Your task to perform on an android device: change notifications settings Image 0: 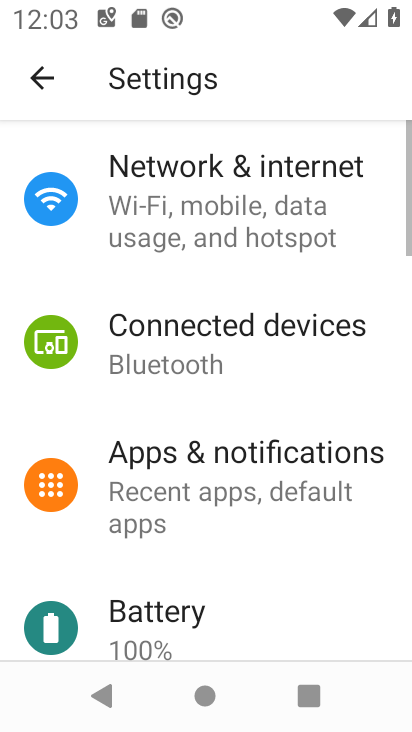
Step 0: press home button
Your task to perform on an android device: change notifications settings Image 1: 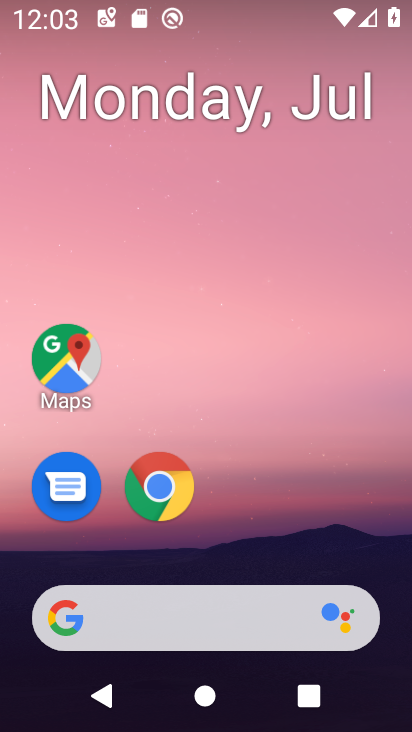
Step 1: drag from (372, 552) to (346, 301)
Your task to perform on an android device: change notifications settings Image 2: 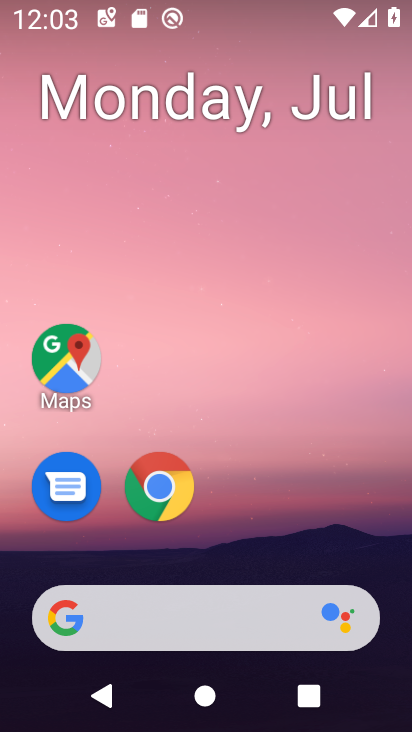
Step 2: drag from (358, 452) to (344, 87)
Your task to perform on an android device: change notifications settings Image 3: 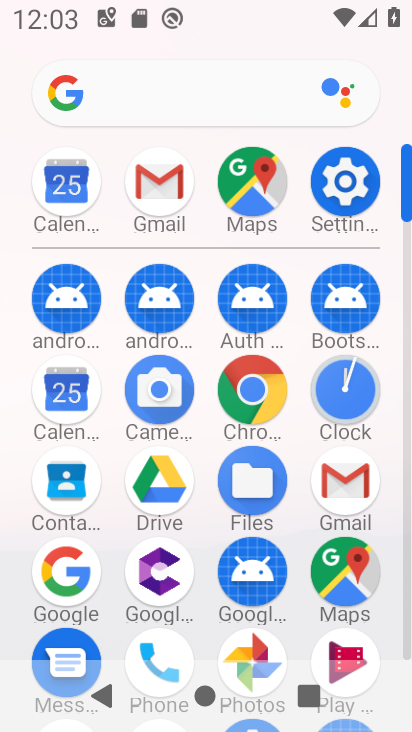
Step 3: click (351, 188)
Your task to perform on an android device: change notifications settings Image 4: 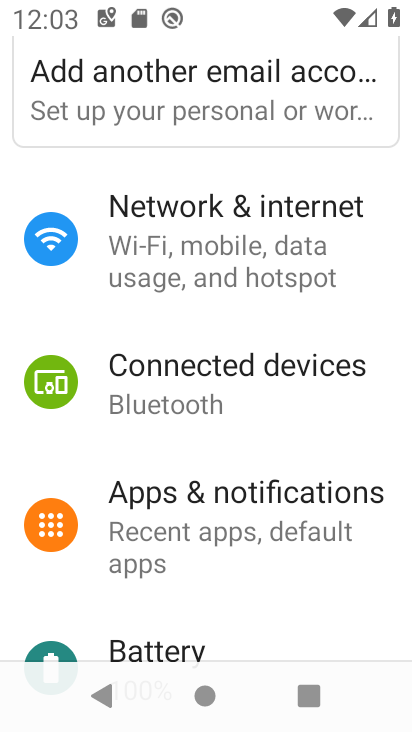
Step 4: drag from (367, 554) to (371, 420)
Your task to perform on an android device: change notifications settings Image 5: 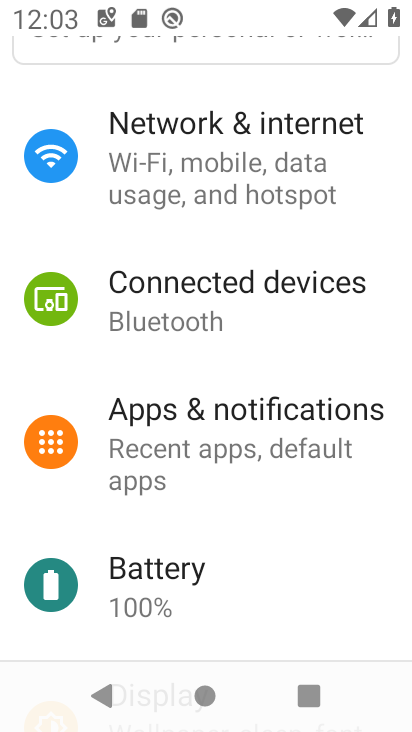
Step 5: drag from (357, 560) to (334, 435)
Your task to perform on an android device: change notifications settings Image 6: 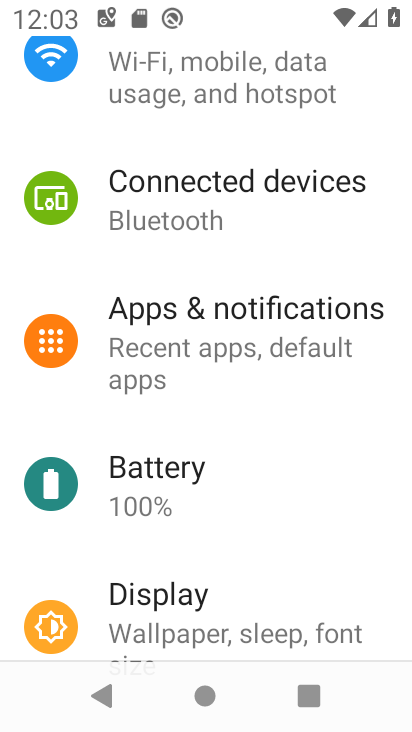
Step 6: drag from (320, 539) to (305, 428)
Your task to perform on an android device: change notifications settings Image 7: 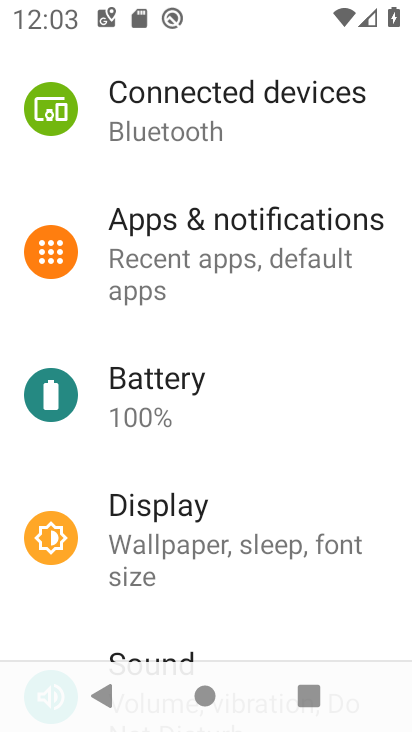
Step 7: drag from (297, 539) to (289, 379)
Your task to perform on an android device: change notifications settings Image 8: 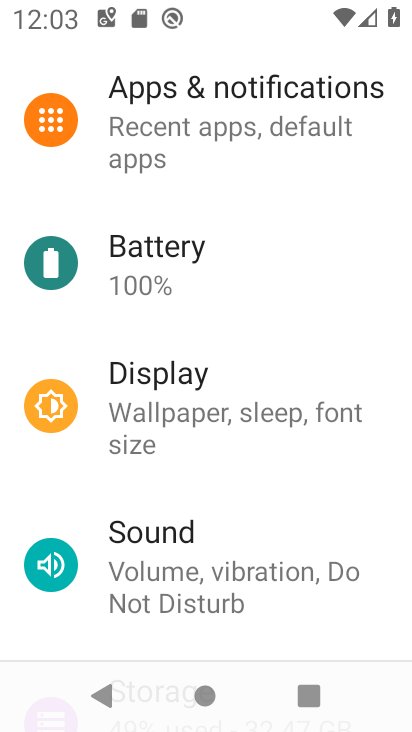
Step 8: drag from (294, 535) to (263, 407)
Your task to perform on an android device: change notifications settings Image 9: 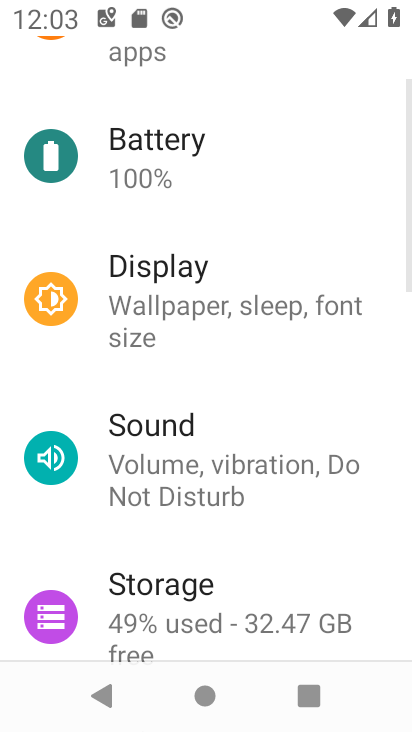
Step 9: drag from (273, 537) to (243, 410)
Your task to perform on an android device: change notifications settings Image 10: 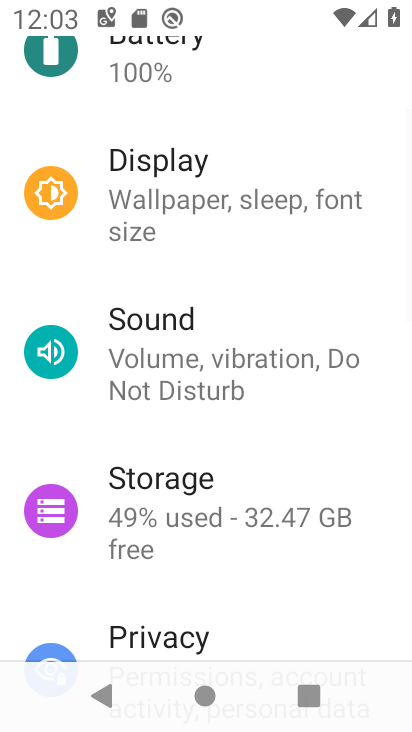
Step 10: drag from (270, 564) to (239, 427)
Your task to perform on an android device: change notifications settings Image 11: 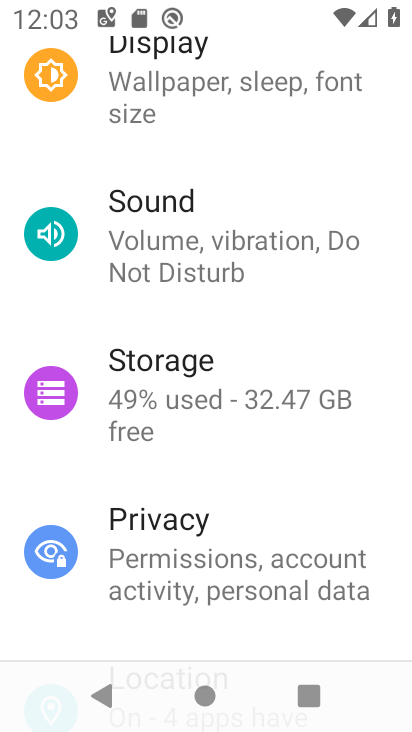
Step 11: drag from (295, 299) to (295, 373)
Your task to perform on an android device: change notifications settings Image 12: 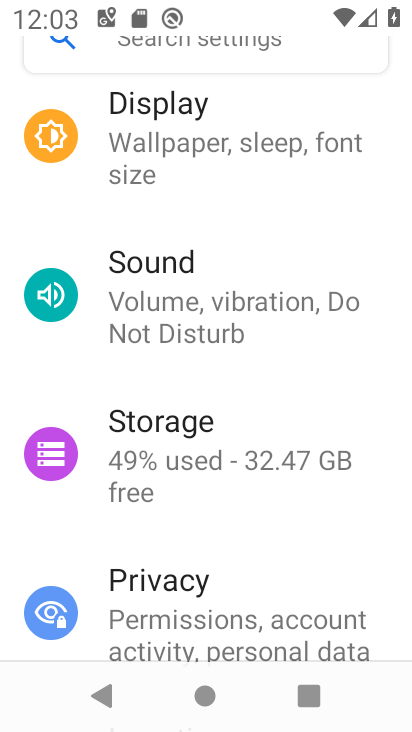
Step 12: drag from (317, 249) to (318, 382)
Your task to perform on an android device: change notifications settings Image 13: 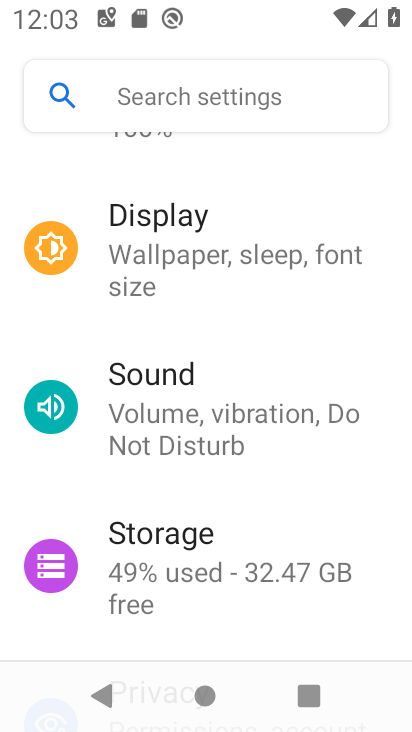
Step 13: drag from (363, 226) to (366, 400)
Your task to perform on an android device: change notifications settings Image 14: 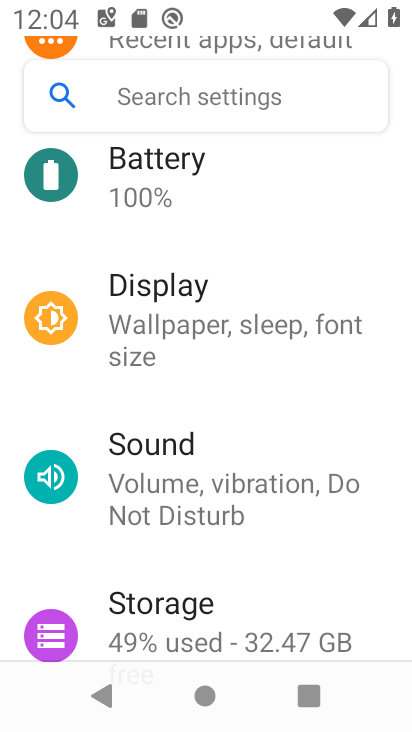
Step 14: drag from (360, 198) to (323, 431)
Your task to perform on an android device: change notifications settings Image 15: 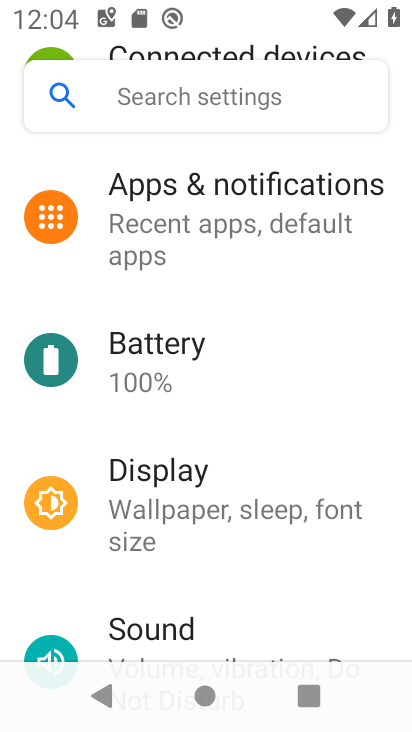
Step 15: click (337, 207)
Your task to perform on an android device: change notifications settings Image 16: 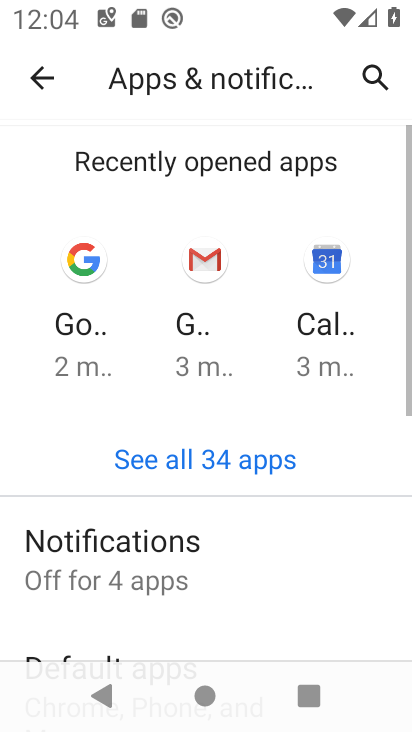
Step 16: drag from (313, 472) to (313, 391)
Your task to perform on an android device: change notifications settings Image 17: 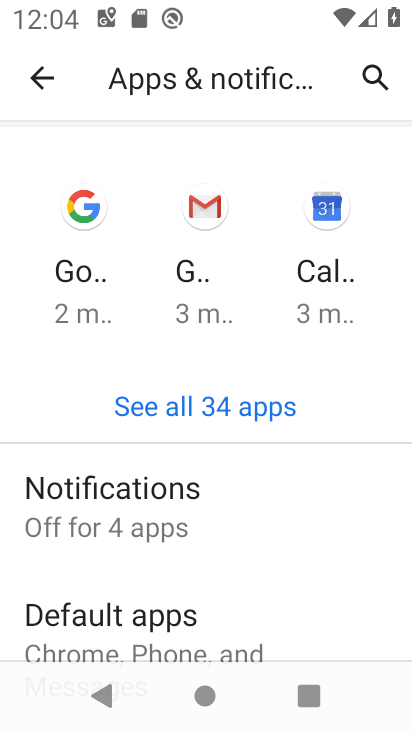
Step 17: drag from (298, 509) to (298, 407)
Your task to perform on an android device: change notifications settings Image 18: 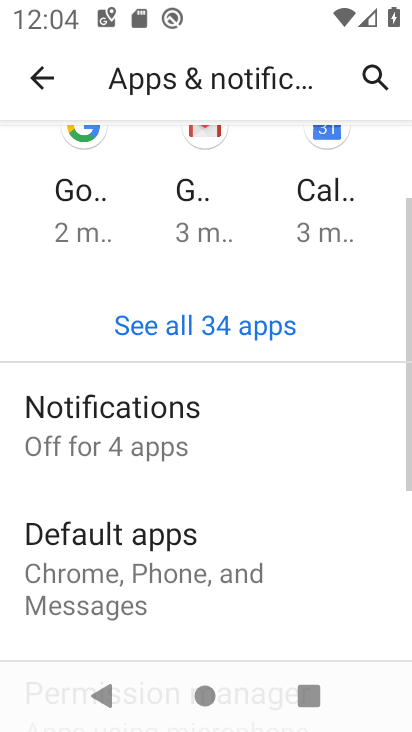
Step 18: click (298, 406)
Your task to perform on an android device: change notifications settings Image 19: 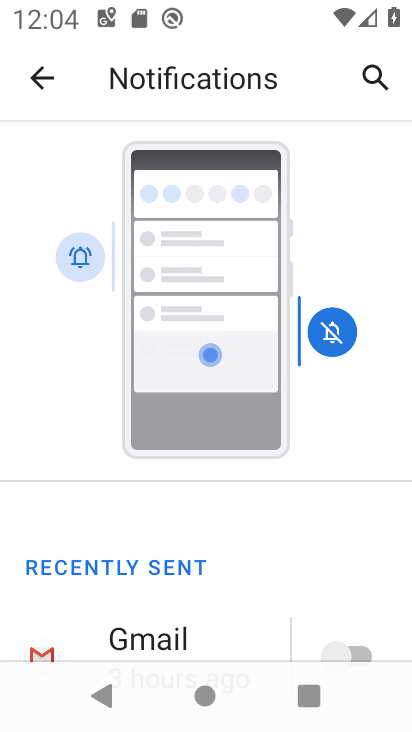
Step 19: drag from (254, 526) to (254, 436)
Your task to perform on an android device: change notifications settings Image 20: 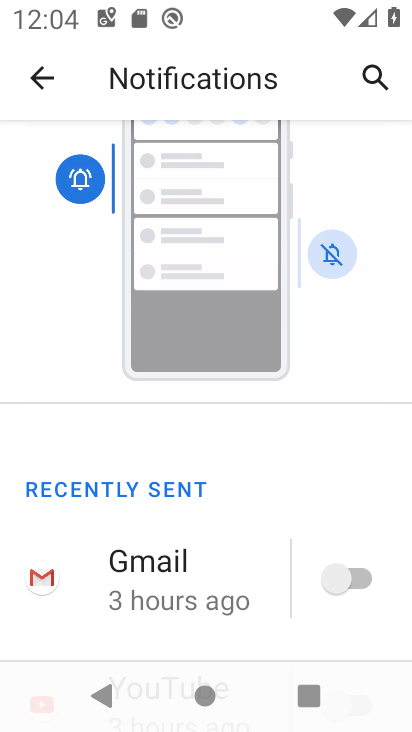
Step 20: drag from (254, 539) to (254, 439)
Your task to perform on an android device: change notifications settings Image 21: 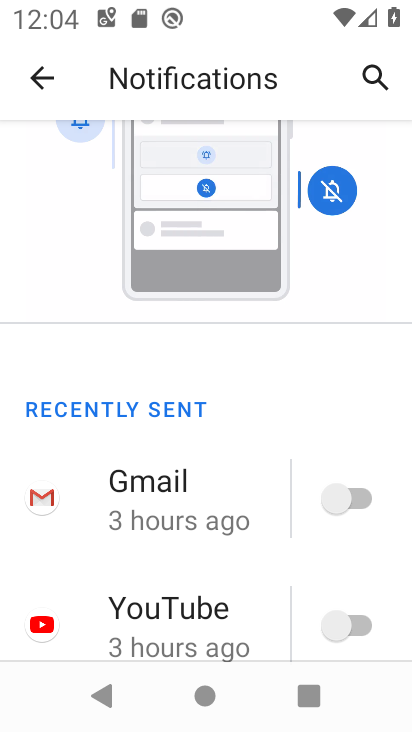
Step 21: drag from (253, 582) to (256, 463)
Your task to perform on an android device: change notifications settings Image 22: 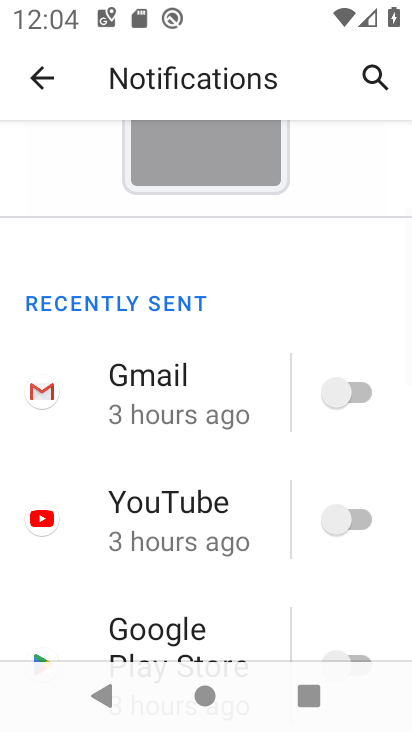
Step 22: drag from (249, 604) to (250, 490)
Your task to perform on an android device: change notifications settings Image 23: 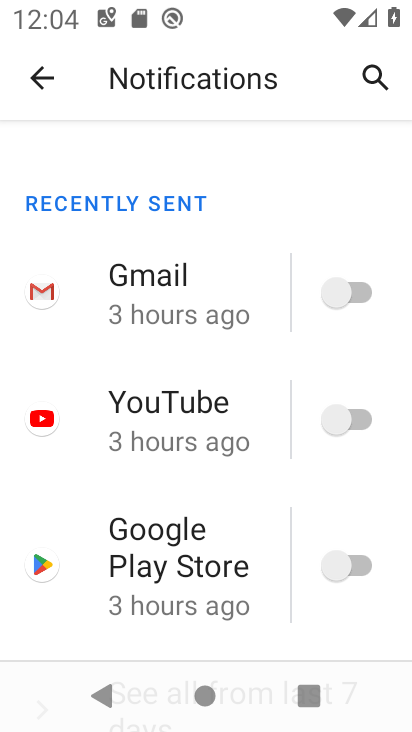
Step 23: click (344, 564)
Your task to perform on an android device: change notifications settings Image 24: 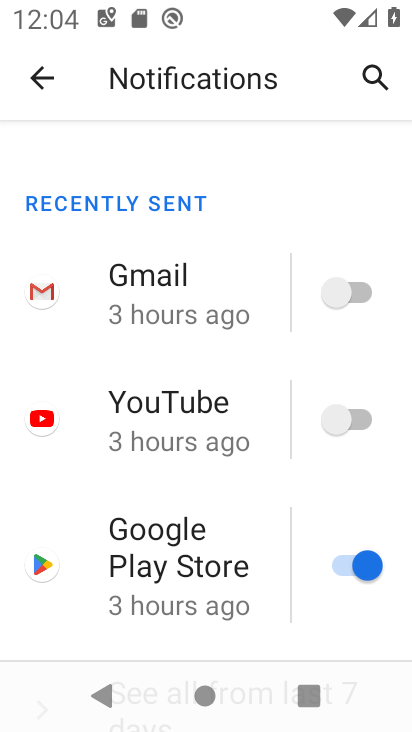
Step 24: click (349, 417)
Your task to perform on an android device: change notifications settings Image 25: 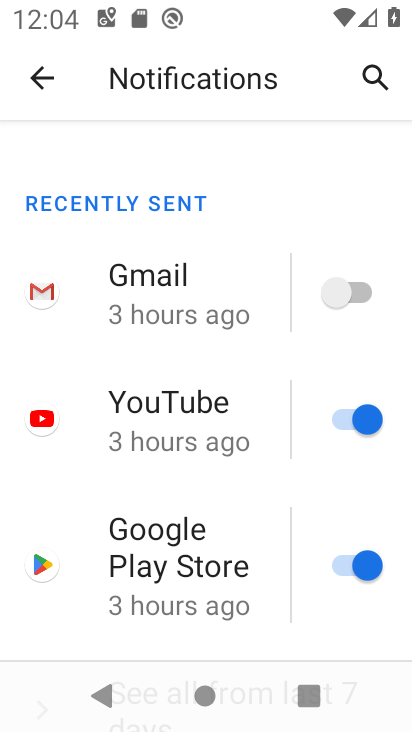
Step 25: click (337, 292)
Your task to perform on an android device: change notifications settings Image 26: 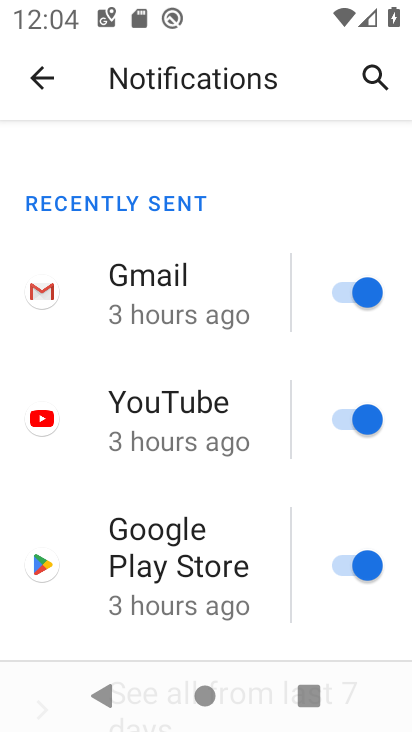
Step 26: task complete